Your task to perform on an android device: Open maps Image 0: 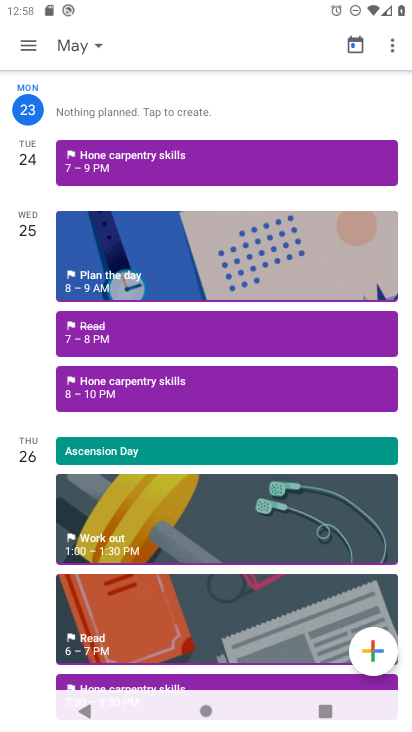
Step 0: press home button
Your task to perform on an android device: Open maps Image 1: 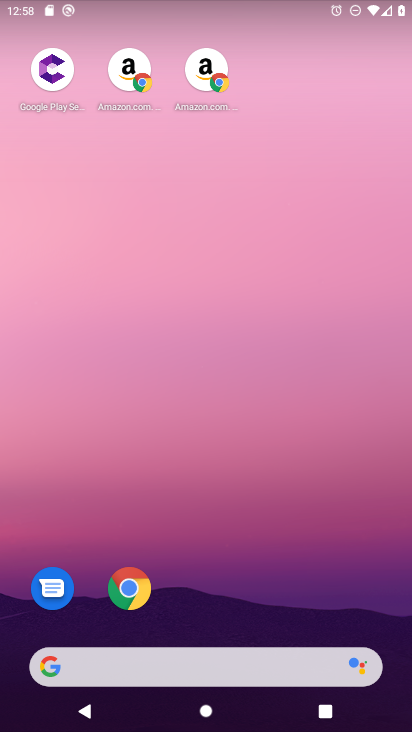
Step 1: drag from (223, 692) to (282, 108)
Your task to perform on an android device: Open maps Image 2: 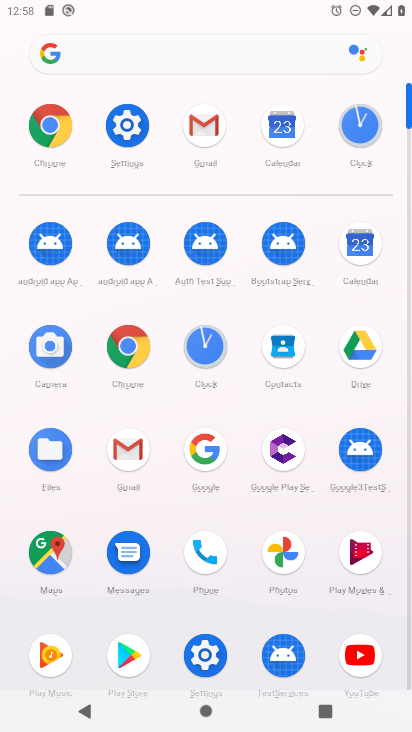
Step 2: click (36, 570)
Your task to perform on an android device: Open maps Image 3: 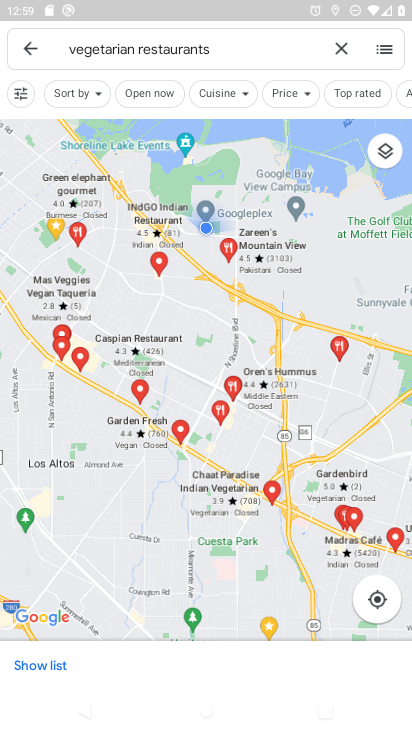
Step 3: click (32, 50)
Your task to perform on an android device: Open maps Image 4: 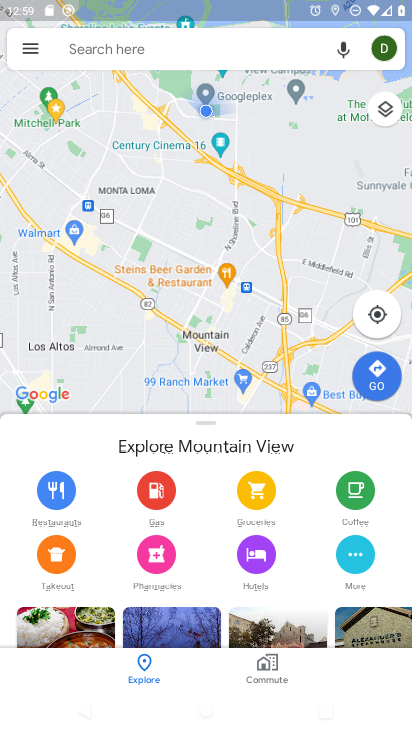
Step 4: click (207, 248)
Your task to perform on an android device: Open maps Image 5: 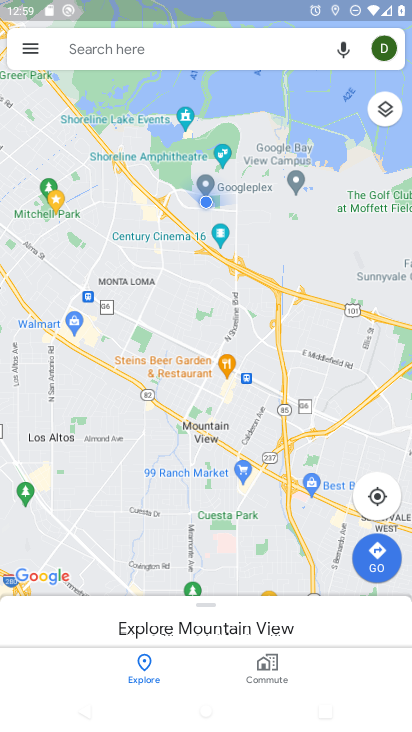
Step 5: task complete